Your task to perform on an android device: Check the weather Image 0: 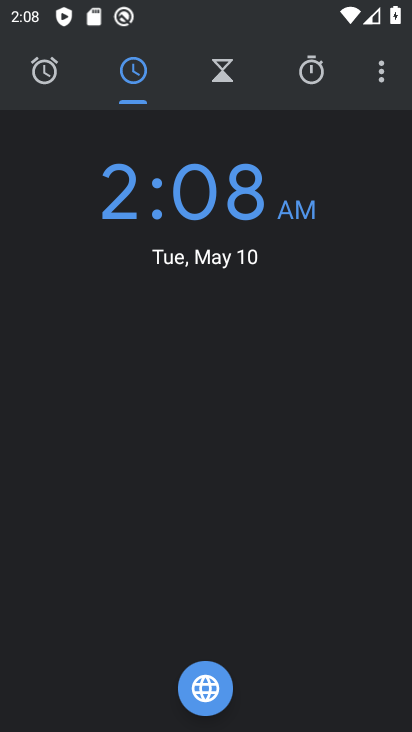
Step 0: press home button
Your task to perform on an android device: Check the weather Image 1: 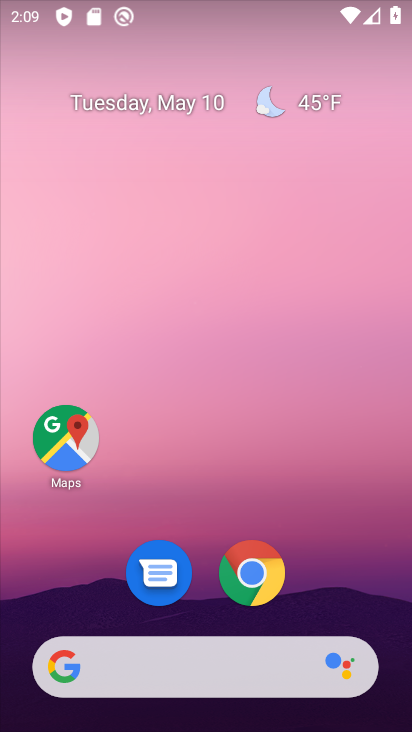
Step 1: drag from (203, 608) to (211, 153)
Your task to perform on an android device: Check the weather Image 2: 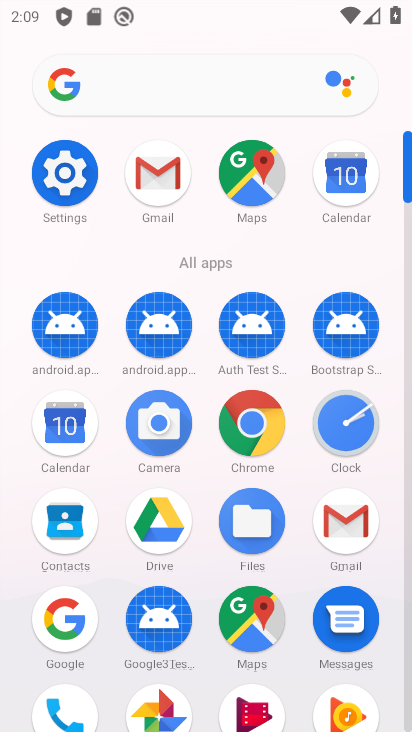
Step 2: click (69, 589)
Your task to perform on an android device: Check the weather Image 3: 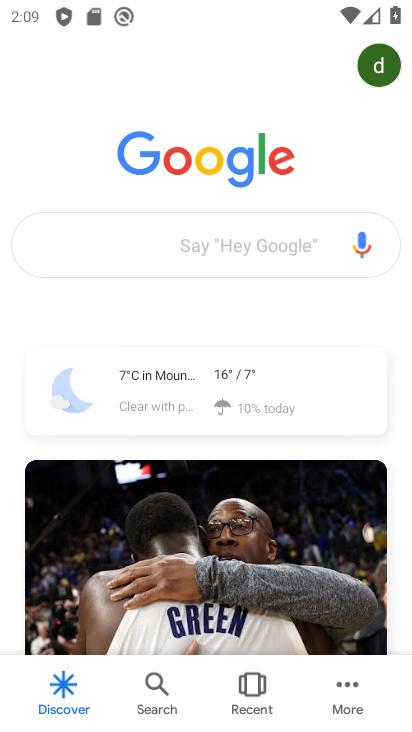
Step 3: click (190, 374)
Your task to perform on an android device: Check the weather Image 4: 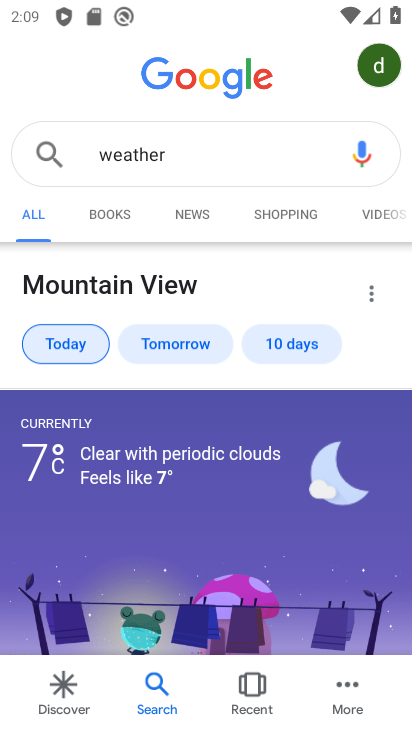
Step 4: task complete